Your task to perform on an android device: Open Youtube and go to "Your channel" Image 0: 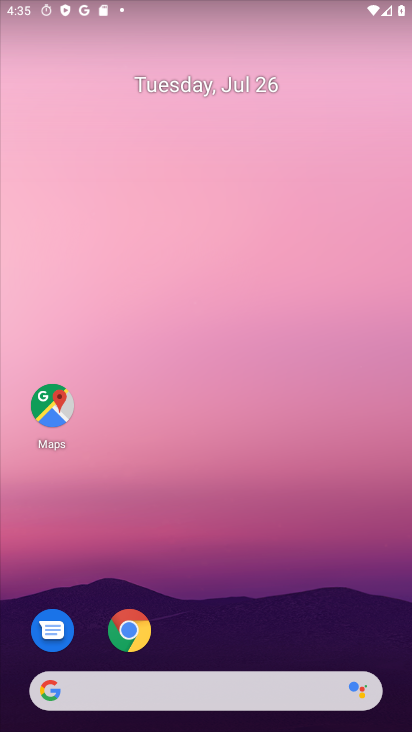
Step 0: drag from (332, 594) to (231, 55)
Your task to perform on an android device: Open Youtube and go to "Your channel" Image 1: 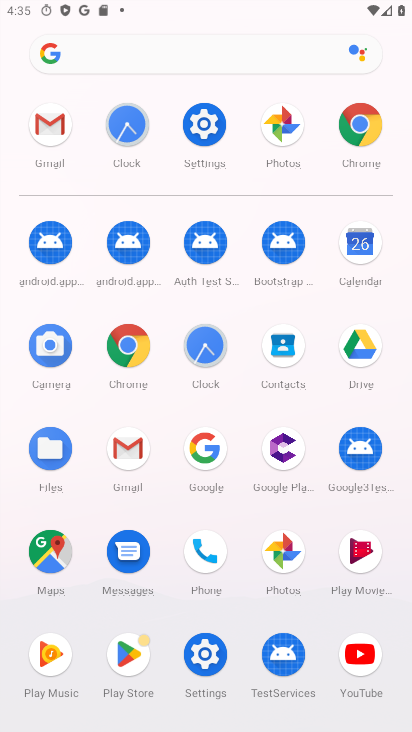
Step 1: click (369, 661)
Your task to perform on an android device: Open Youtube and go to "Your channel" Image 2: 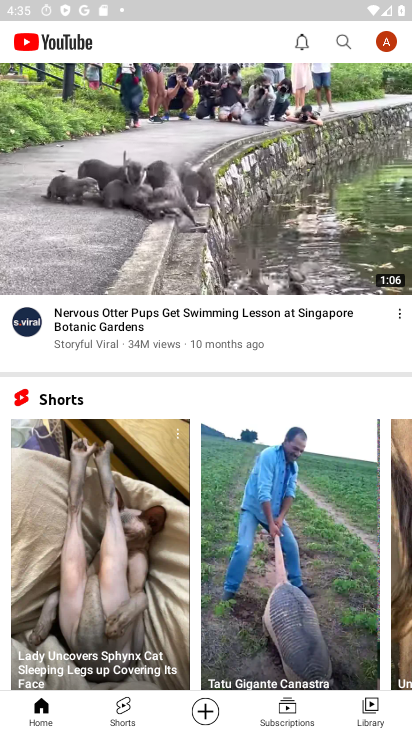
Step 2: click (390, 49)
Your task to perform on an android device: Open Youtube and go to "Your channel" Image 3: 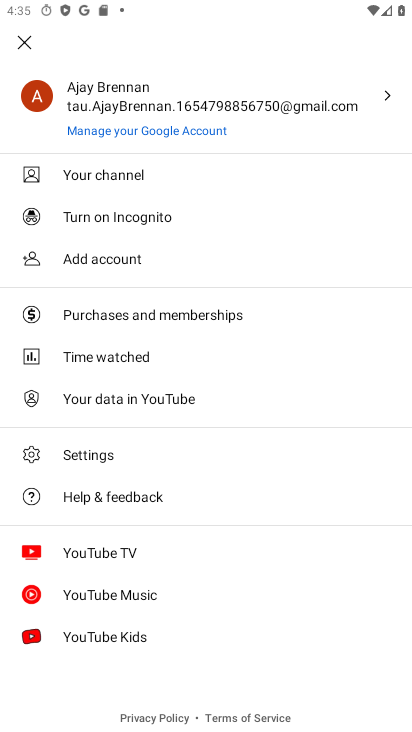
Step 3: click (130, 170)
Your task to perform on an android device: Open Youtube and go to "Your channel" Image 4: 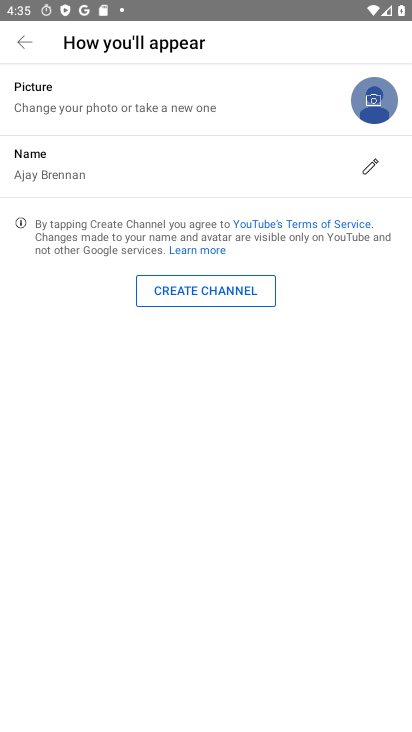
Step 4: task complete